Your task to perform on an android device: Open maps Image 0: 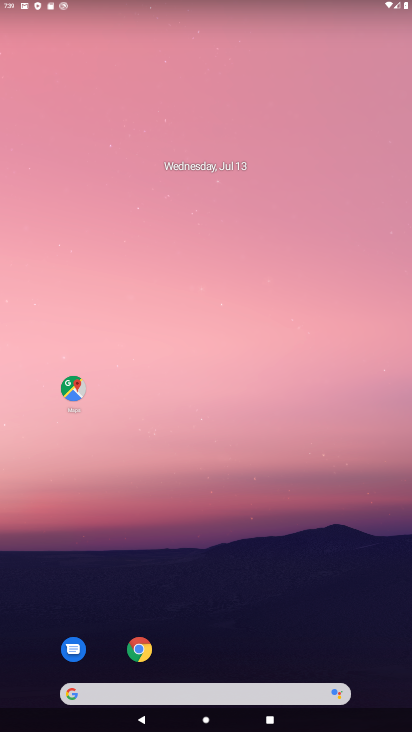
Step 0: click (74, 384)
Your task to perform on an android device: Open maps Image 1: 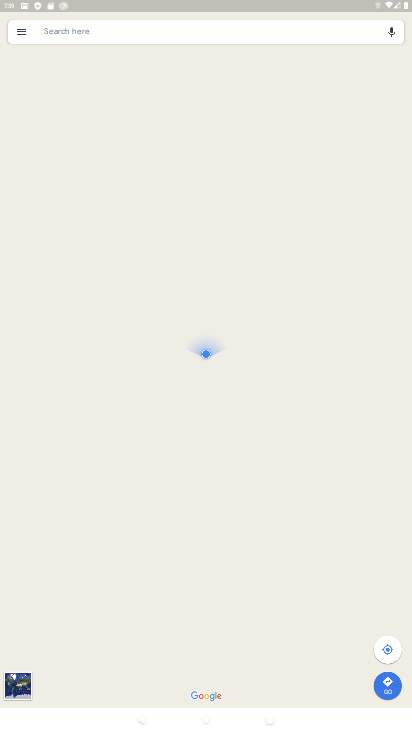
Step 1: task complete